Your task to perform on an android device: set default search engine in the chrome app Image 0: 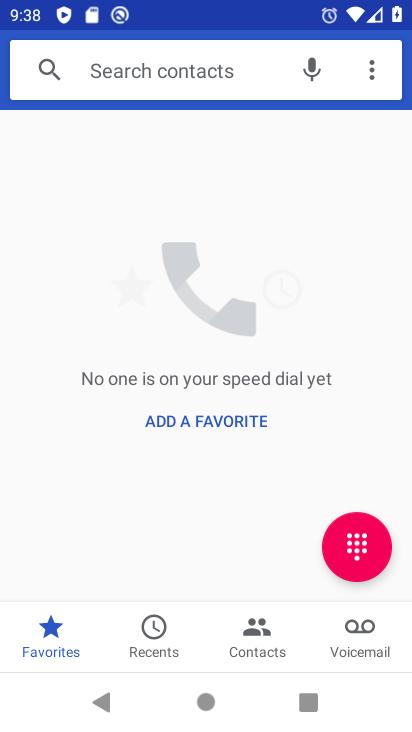
Step 0: press home button
Your task to perform on an android device: set default search engine in the chrome app Image 1: 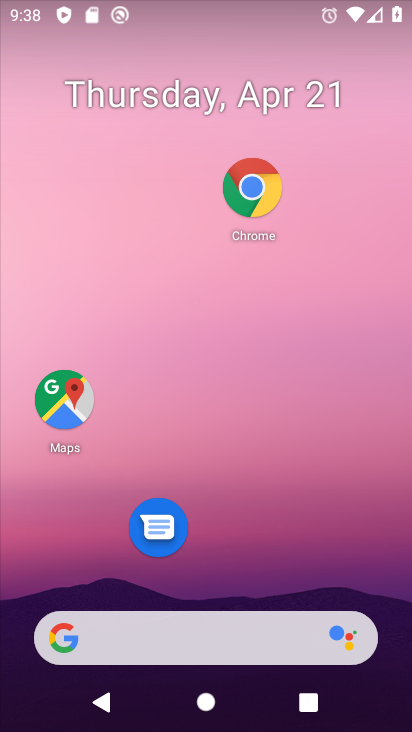
Step 1: click (252, 228)
Your task to perform on an android device: set default search engine in the chrome app Image 2: 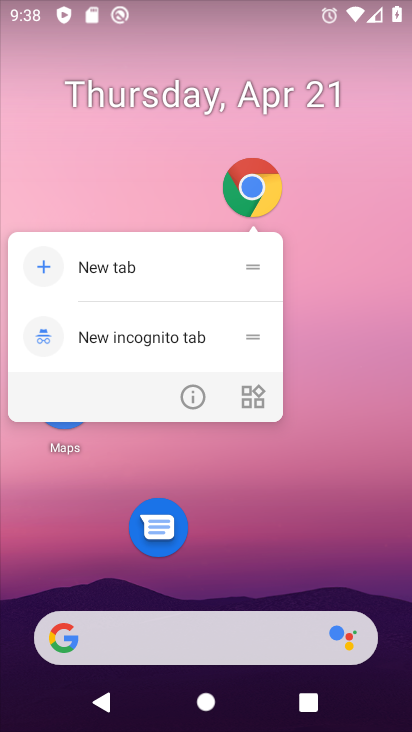
Step 2: click (261, 185)
Your task to perform on an android device: set default search engine in the chrome app Image 3: 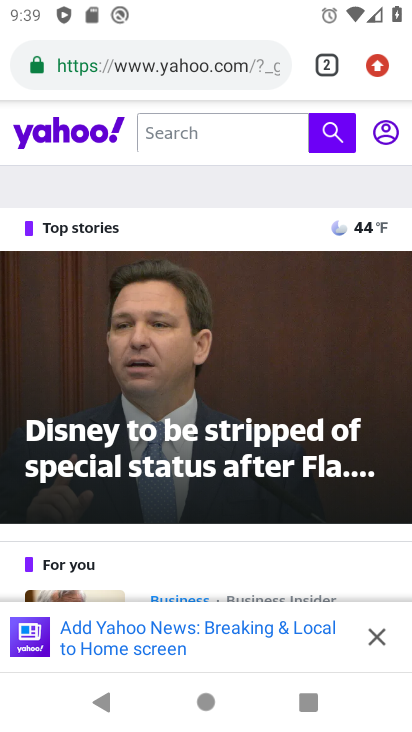
Step 3: click (378, 68)
Your task to perform on an android device: set default search engine in the chrome app Image 4: 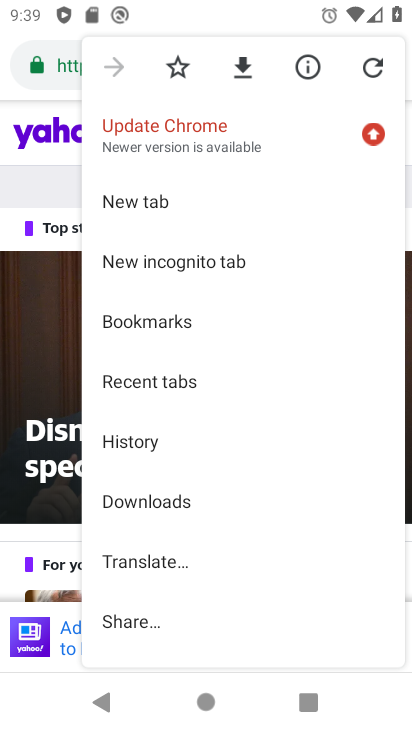
Step 4: drag from (230, 563) to (242, 340)
Your task to perform on an android device: set default search engine in the chrome app Image 5: 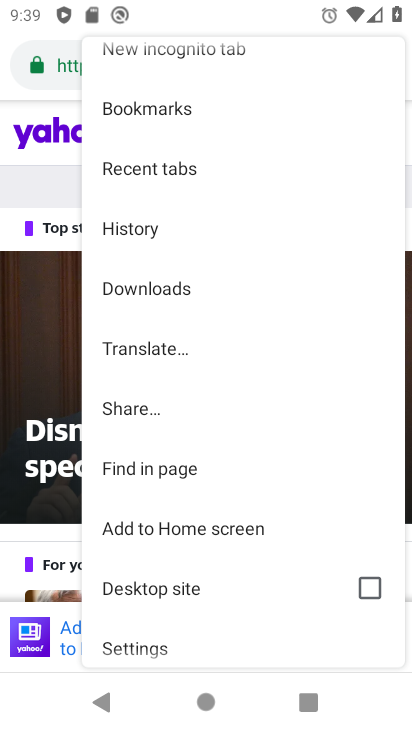
Step 5: click (225, 644)
Your task to perform on an android device: set default search engine in the chrome app Image 6: 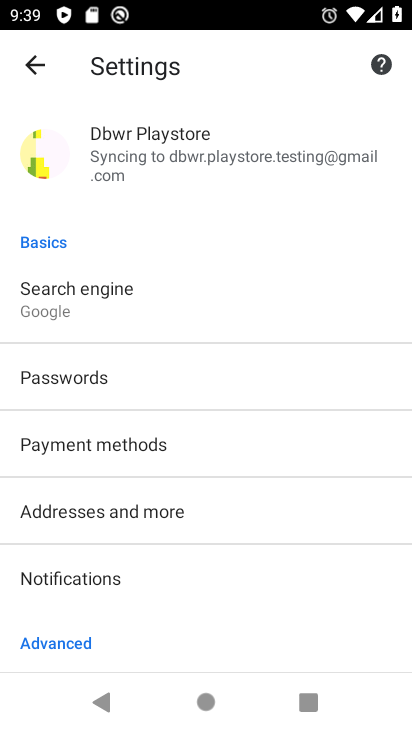
Step 6: drag from (212, 595) to (269, 370)
Your task to perform on an android device: set default search engine in the chrome app Image 7: 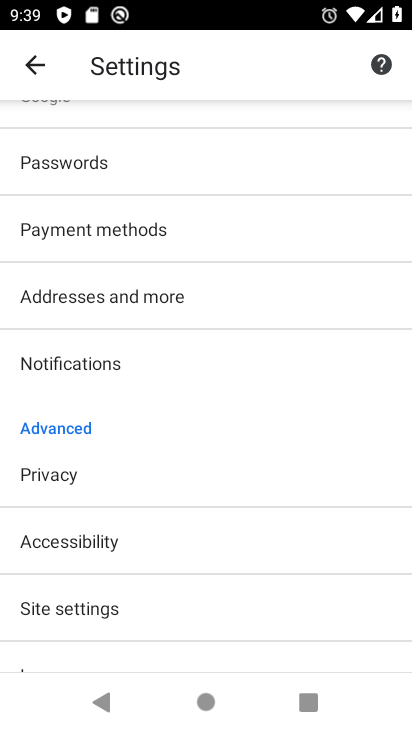
Step 7: drag from (222, 152) to (212, 441)
Your task to perform on an android device: set default search engine in the chrome app Image 8: 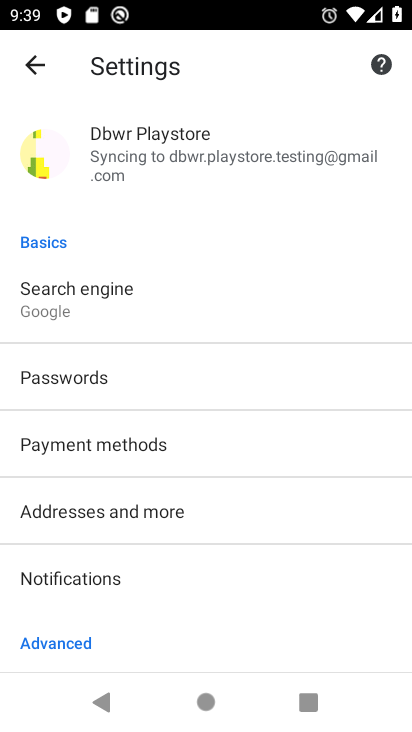
Step 8: click (139, 304)
Your task to perform on an android device: set default search engine in the chrome app Image 9: 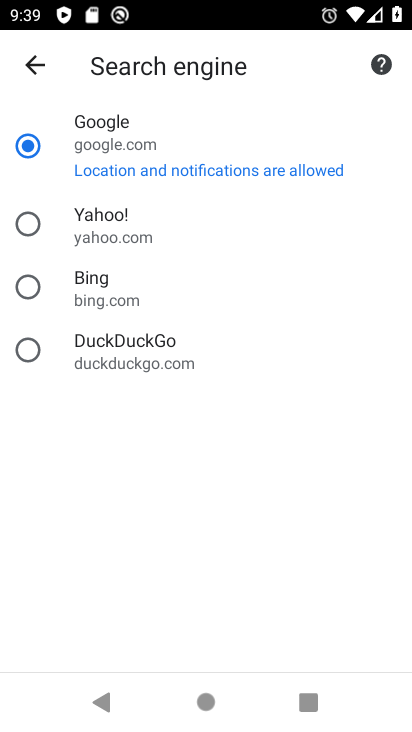
Step 9: task complete